Your task to perform on an android device: delete location history Image 0: 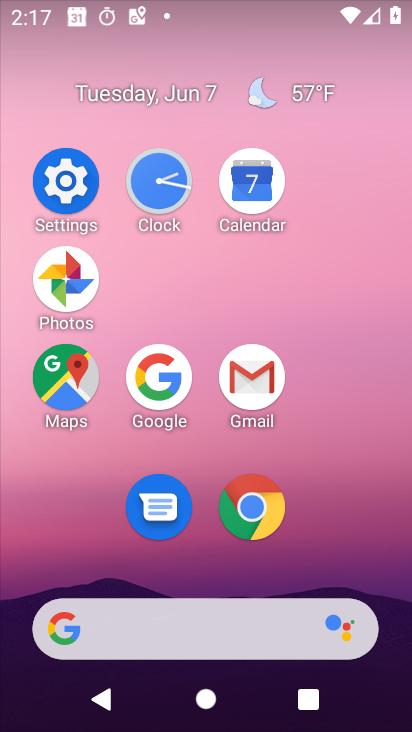
Step 0: click (61, 194)
Your task to perform on an android device: delete location history Image 1: 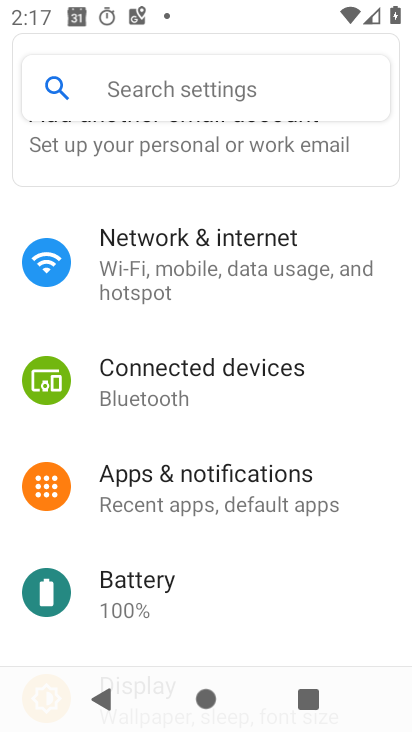
Step 1: drag from (259, 542) to (288, 152)
Your task to perform on an android device: delete location history Image 2: 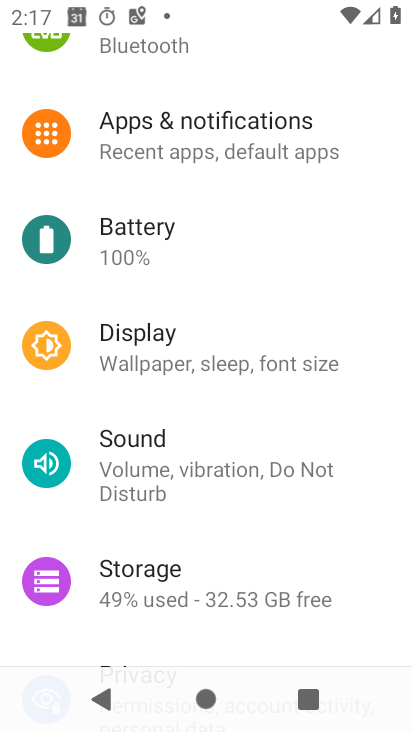
Step 2: drag from (206, 476) to (216, 167)
Your task to perform on an android device: delete location history Image 3: 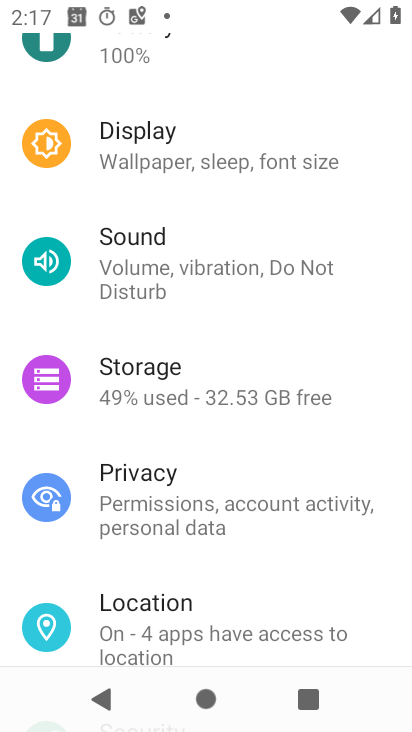
Step 3: click (177, 609)
Your task to perform on an android device: delete location history Image 4: 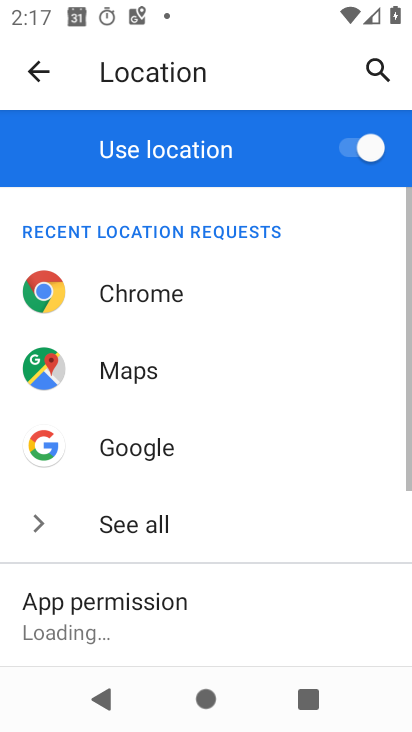
Step 4: drag from (175, 562) to (206, 163)
Your task to perform on an android device: delete location history Image 5: 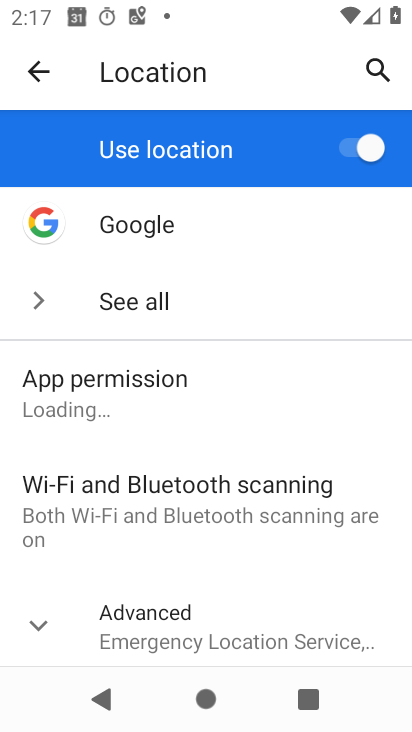
Step 5: click (152, 602)
Your task to perform on an android device: delete location history Image 6: 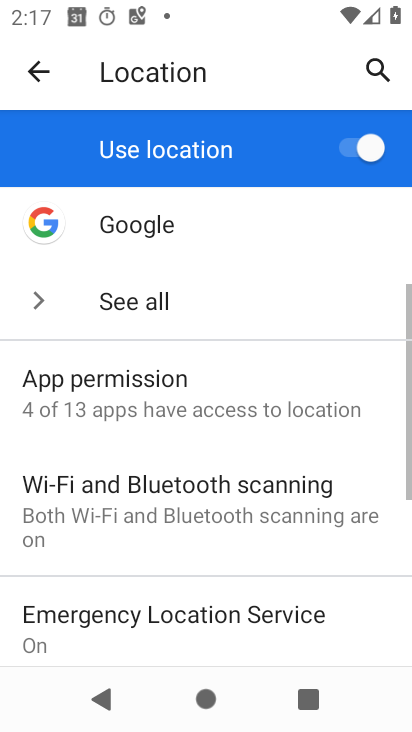
Step 6: drag from (150, 599) to (169, 191)
Your task to perform on an android device: delete location history Image 7: 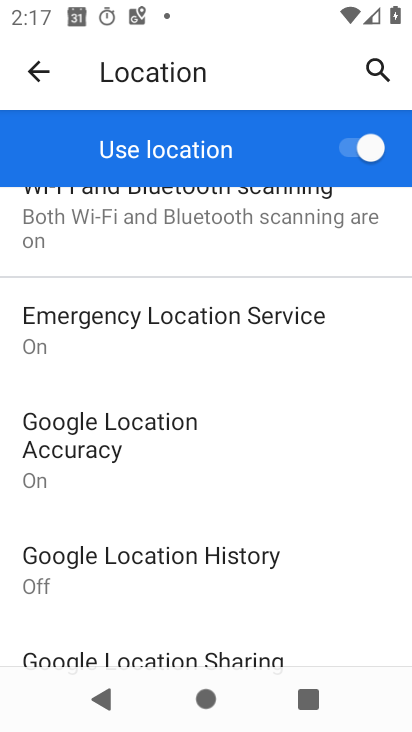
Step 7: drag from (258, 617) to (221, 132)
Your task to perform on an android device: delete location history Image 8: 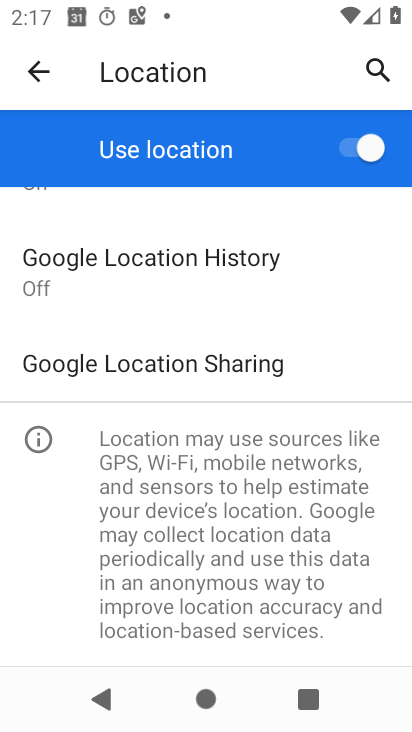
Step 8: click (216, 259)
Your task to perform on an android device: delete location history Image 9: 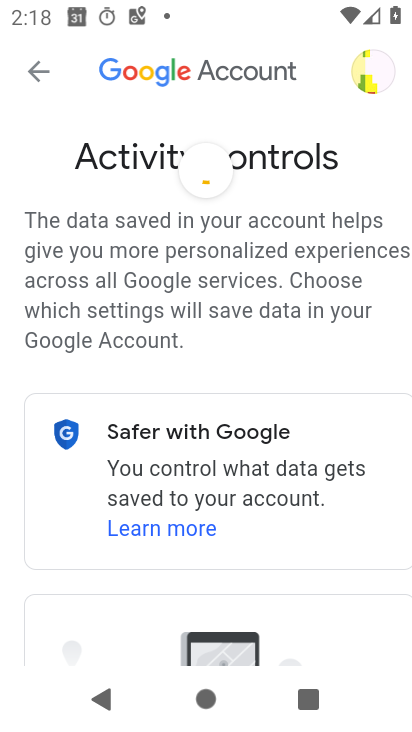
Step 9: drag from (128, 512) to (163, 150)
Your task to perform on an android device: delete location history Image 10: 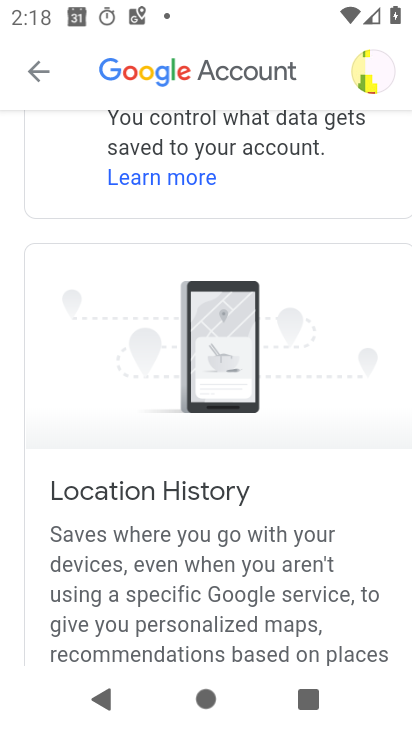
Step 10: drag from (240, 510) to (278, 101)
Your task to perform on an android device: delete location history Image 11: 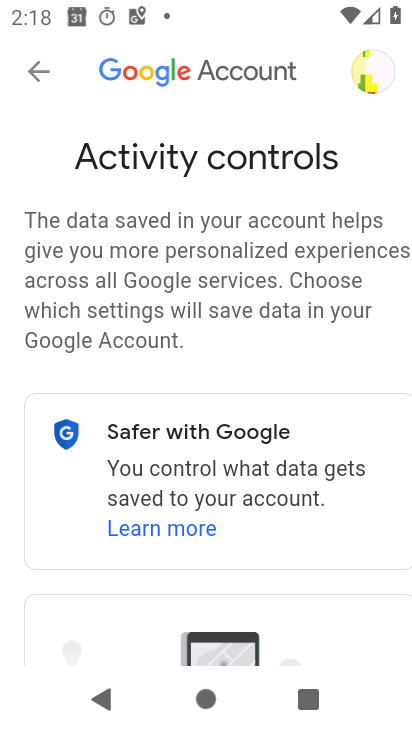
Step 11: drag from (262, 510) to (290, 194)
Your task to perform on an android device: delete location history Image 12: 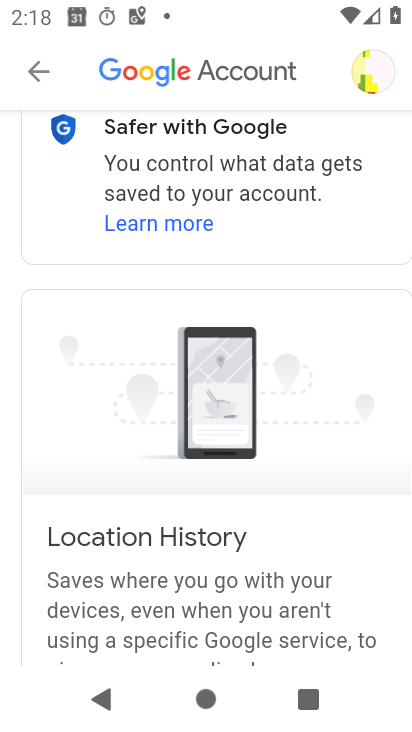
Step 12: drag from (248, 560) to (275, 168)
Your task to perform on an android device: delete location history Image 13: 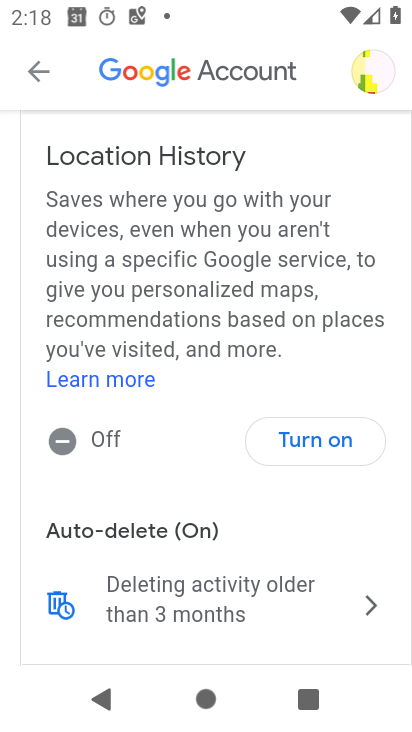
Step 13: click (174, 589)
Your task to perform on an android device: delete location history Image 14: 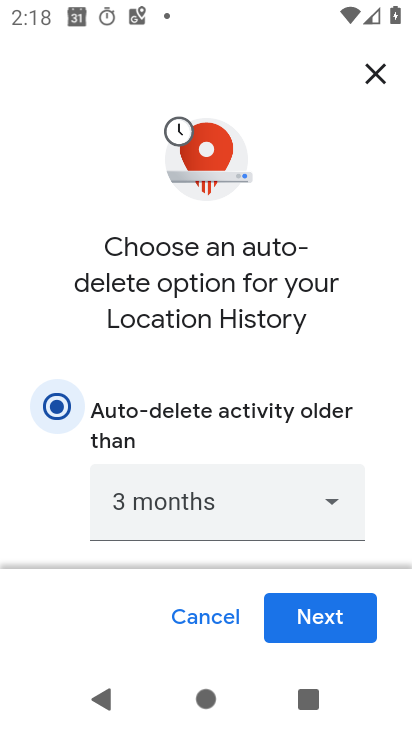
Step 14: click (347, 618)
Your task to perform on an android device: delete location history Image 15: 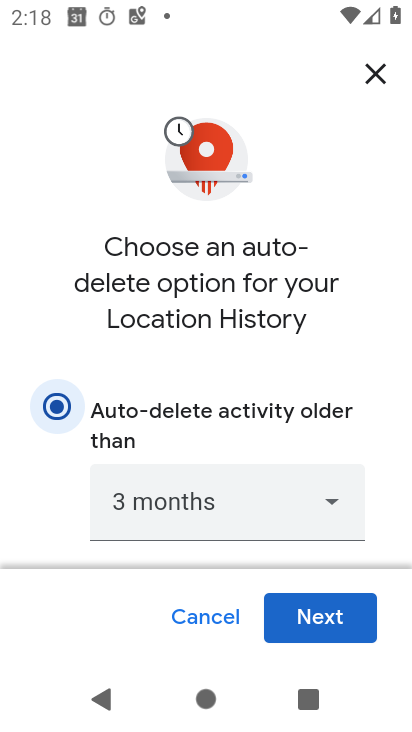
Step 15: click (347, 618)
Your task to perform on an android device: delete location history Image 16: 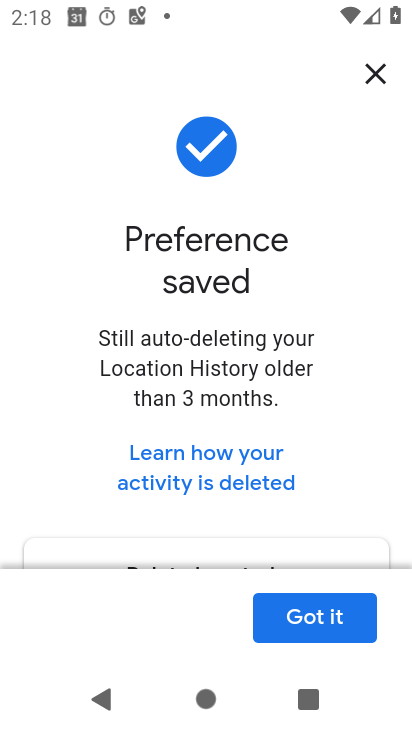
Step 16: click (293, 619)
Your task to perform on an android device: delete location history Image 17: 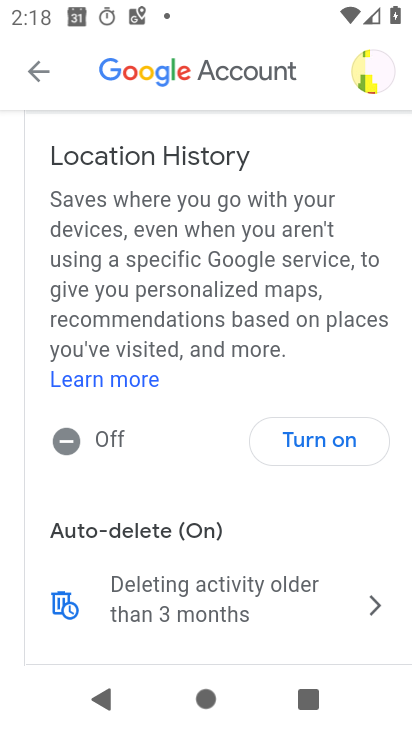
Step 17: task complete